Your task to perform on an android device: See recent photos Image 0: 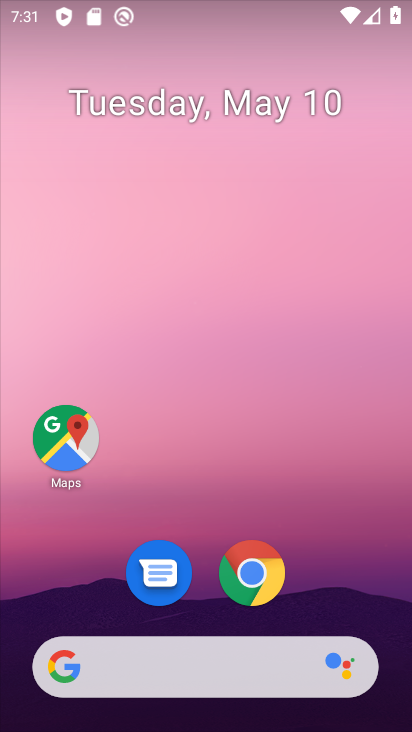
Step 0: drag from (388, 550) to (324, 149)
Your task to perform on an android device: See recent photos Image 1: 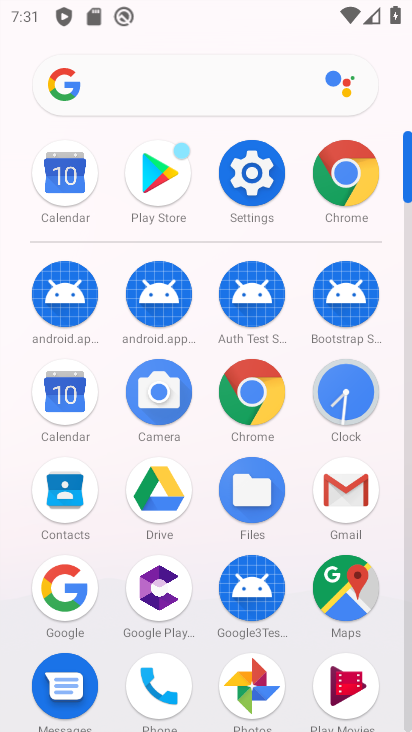
Step 1: click (241, 693)
Your task to perform on an android device: See recent photos Image 2: 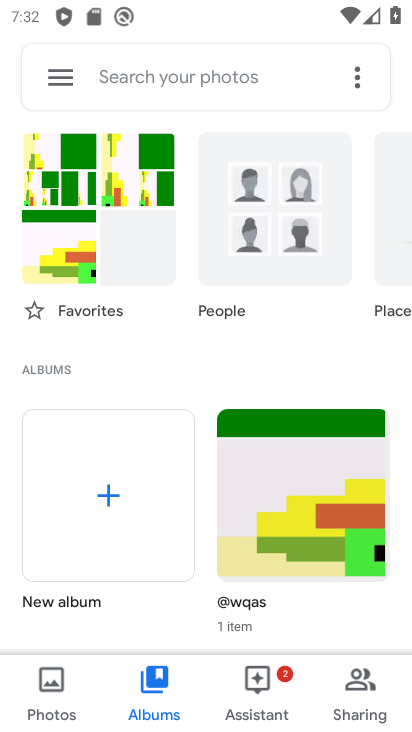
Step 2: click (106, 505)
Your task to perform on an android device: See recent photos Image 3: 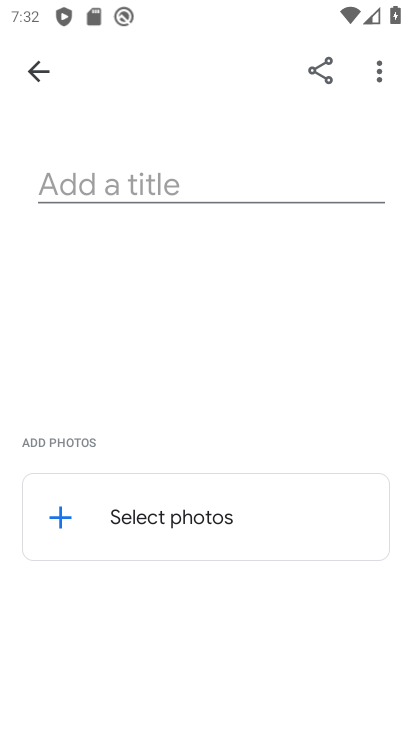
Step 3: click (245, 177)
Your task to perform on an android device: See recent photos Image 4: 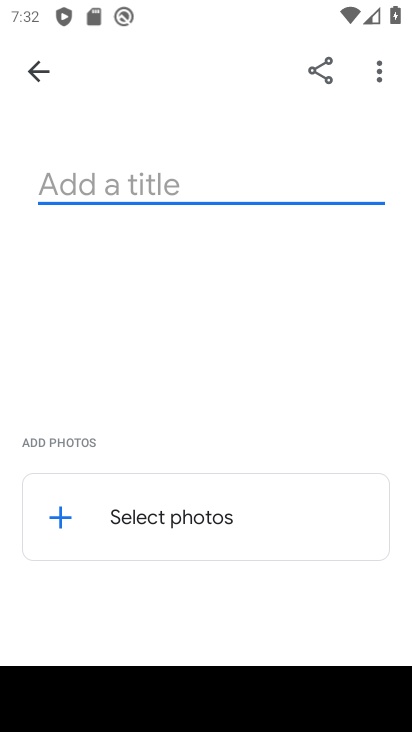
Step 4: type "rent"
Your task to perform on an android device: See recent photos Image 5: 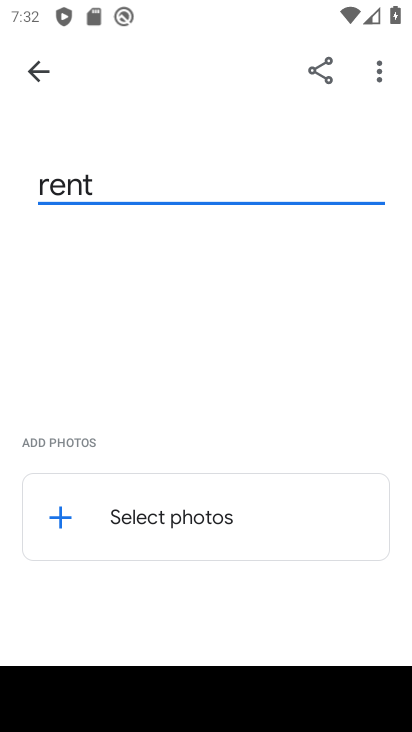
Step 5: click (50, 527)
Your task to perform on an android device: See recent photos Image 6: 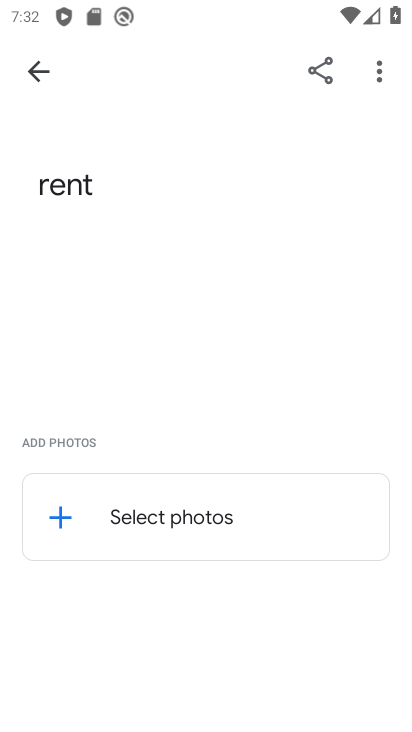
Step 6: click (58, 521)
Your task to perform on an android device: See recent photos Image 7: 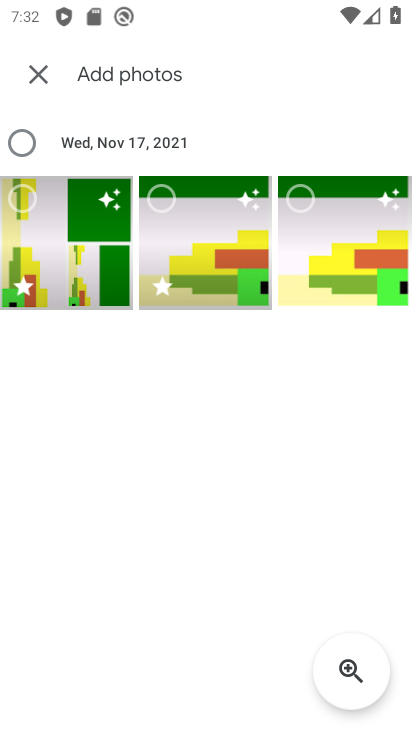
Step 7: click (33, 207)
Your task to perform on an android device: See recent photos Image 8: 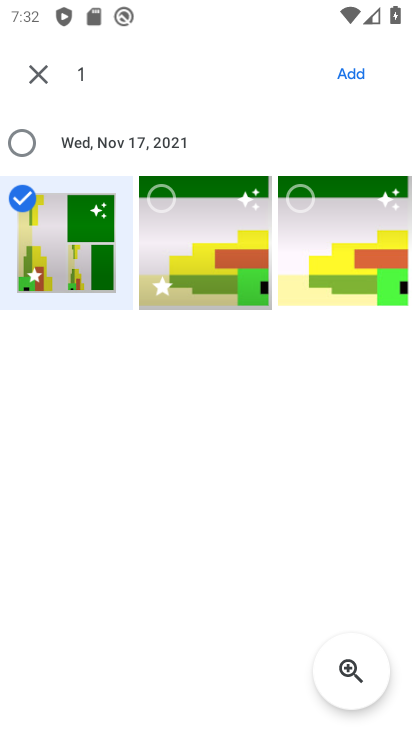
Step 8: click (362, 76)
Your task to perform on an android device: See recent photos Image 9: 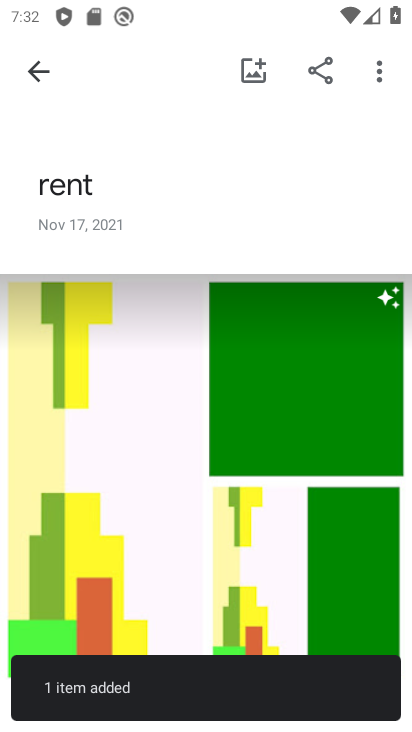
Step 9: task complete